Your task to perform on an android device: see creations saved in the google photos Image 0: 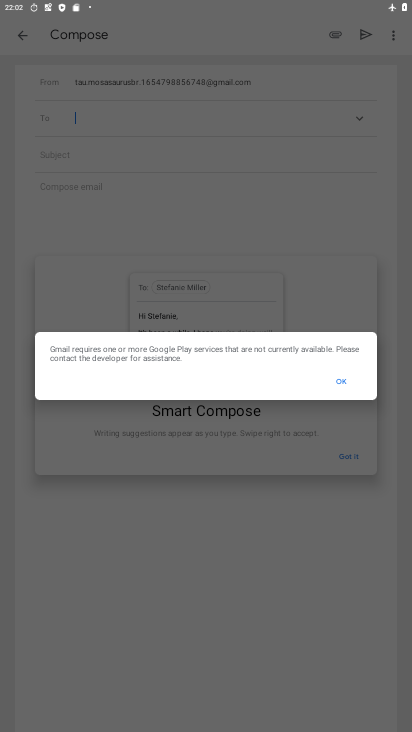
Step 0: press home button
Your task to perform on an android device: see creations saved in the google photos Image 1: 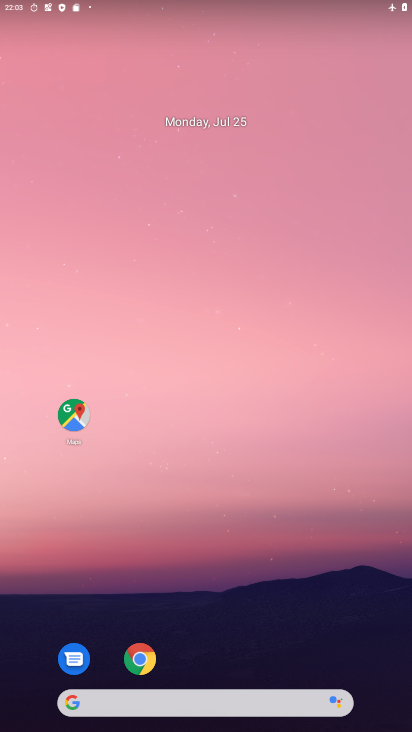
Step 1: drag from (231, 634) to (277, 171)
Your task to perform on an android device: see creations saved in the google photos Image 2: 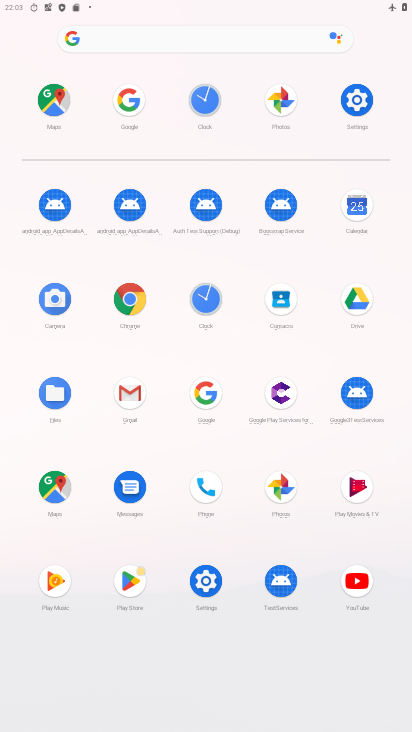
Step 2: click (272, 109)
Your task to perform on an android device: see creations saved in the google photos Image 3: 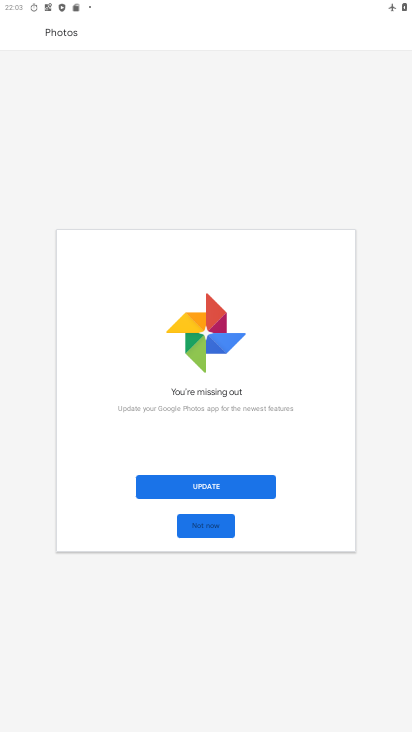
Step 3: click (215, 531)
Your task to perform on an android device: see creations saved in the google photos Image 4: 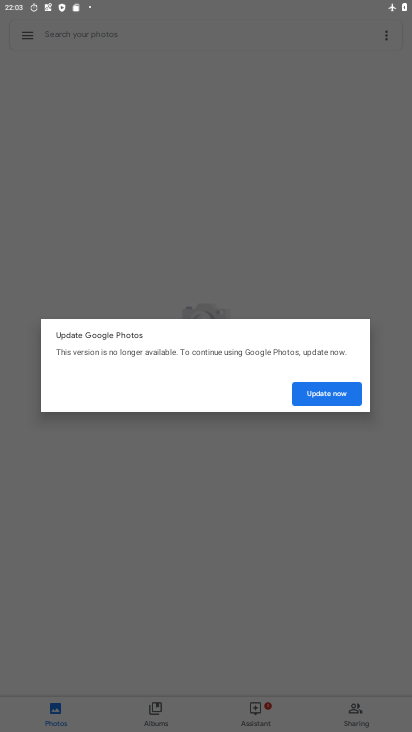
Step 4: click (333, 393)
Your task to perform on an android device: see creations saved in the google photos Image 5: 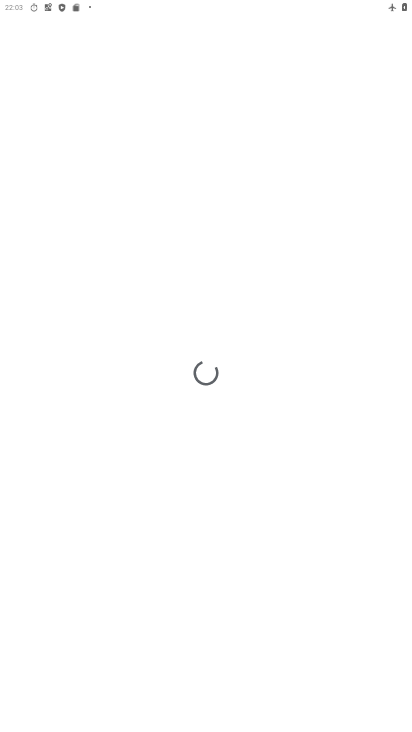
Step 5: press back button
Your task to perform on an android device: see creations saved in the google photos Image 6: 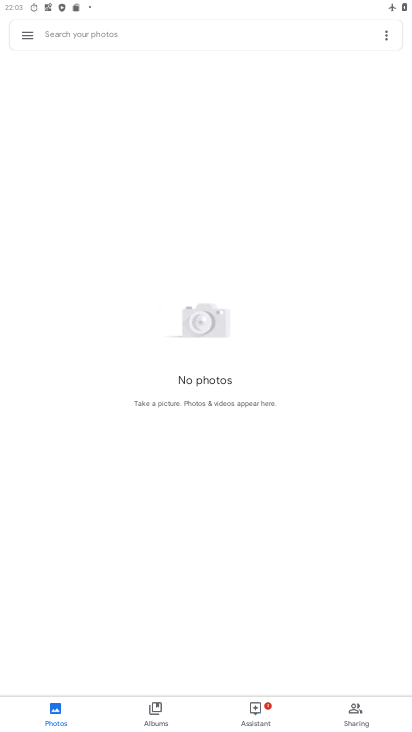
Step 6: click (104, 35)
Your task to perform on an android device: see creations saved in the google photos Image 7: 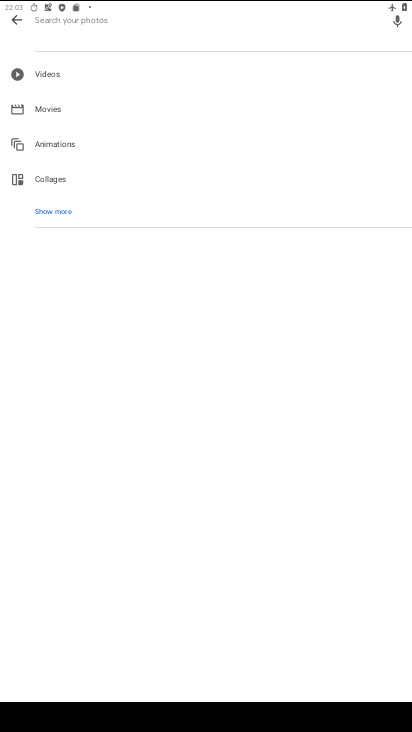
Step 7: click (72, 209)
Your task to perform on an android device: see creations saved in the google photos Image 8: 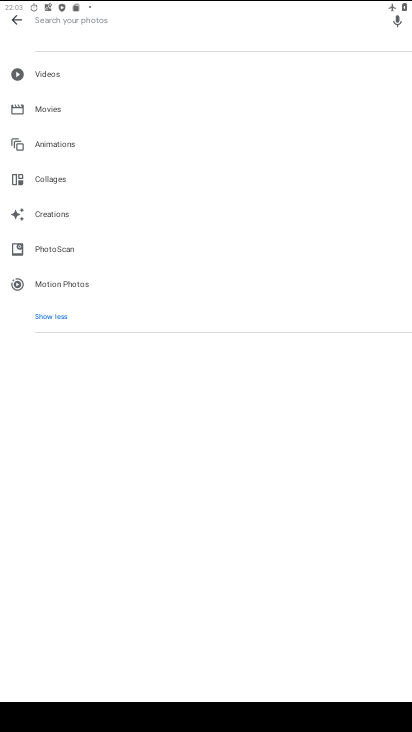
Step 8: click (60, 220)
Your task to perform on an android device: see creations saved in the google photos Image 9: 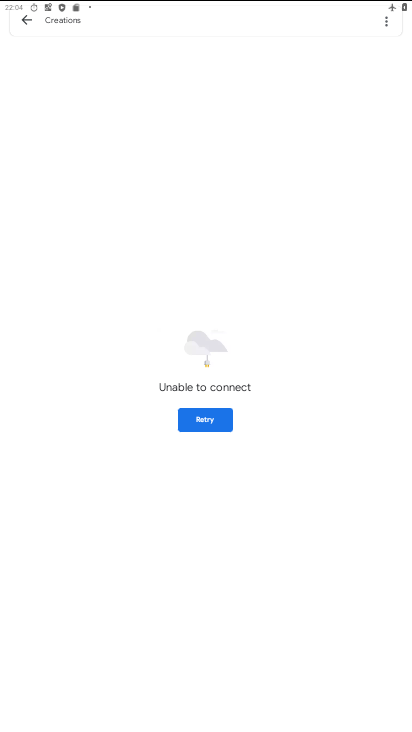
Step 9: task complete